Your task to perform on an android device: Go to eBay Image 0: 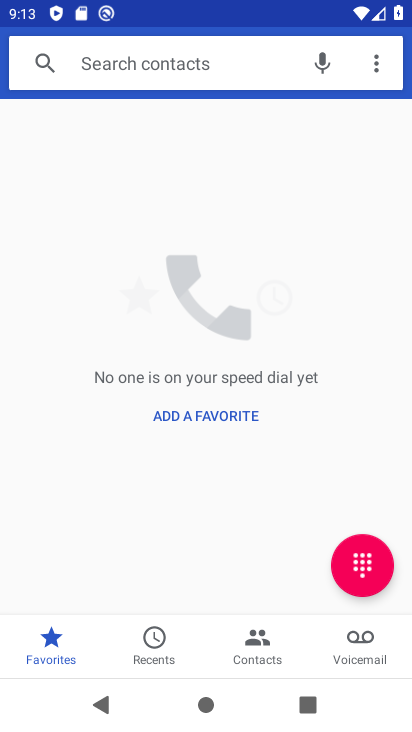
Step 0: press home button
Your task to perform on an android device: Go to eBay Image 1: 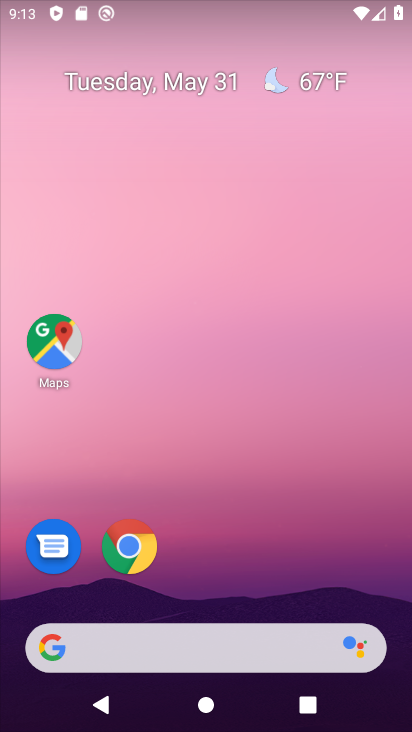
Step 1: drag from (174, 578) to (218, 17)
Your task to perform on an android device: Go to eBay Image 2: 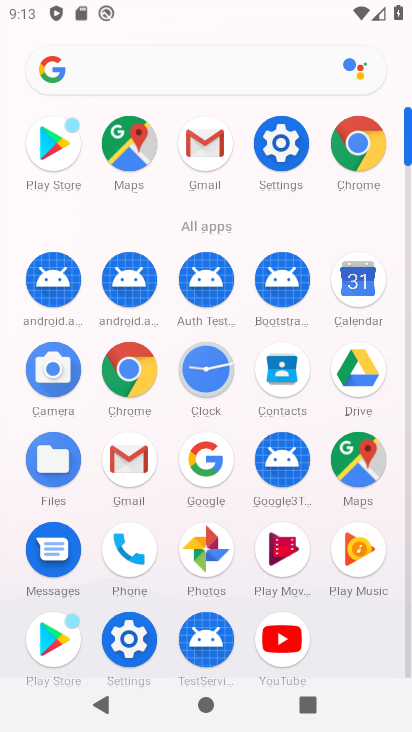
Step 2: click (129, 377)
Your task to perform on an android device: Go to eBay Image 3: 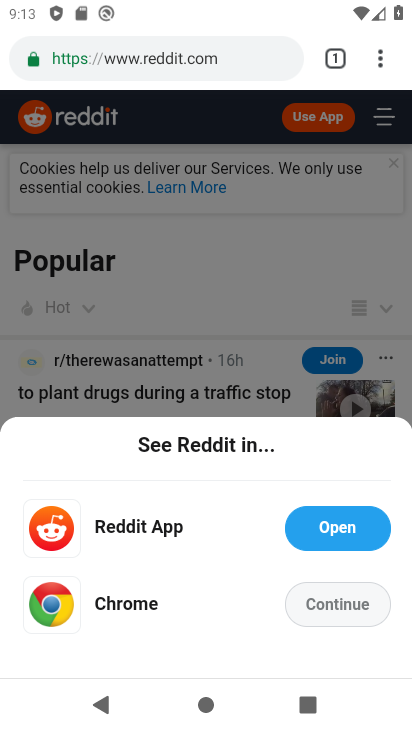
Step 3: click (209, 49)
Your task to perform on an android device: Go to eBay Image 4: 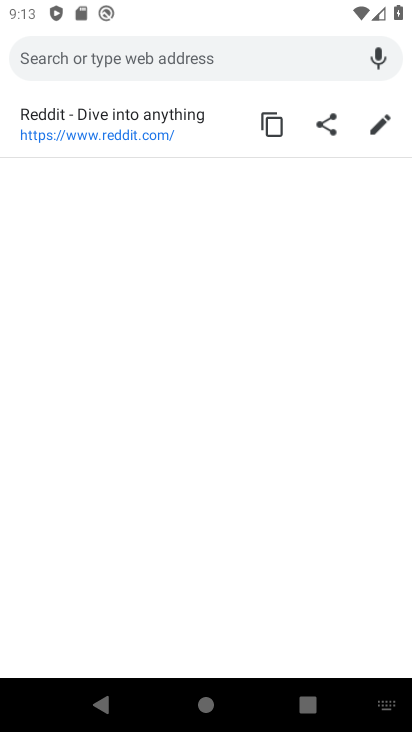
Step 4: type "eBay"
Your task to perform on an android device: Go to eBay Image 5: 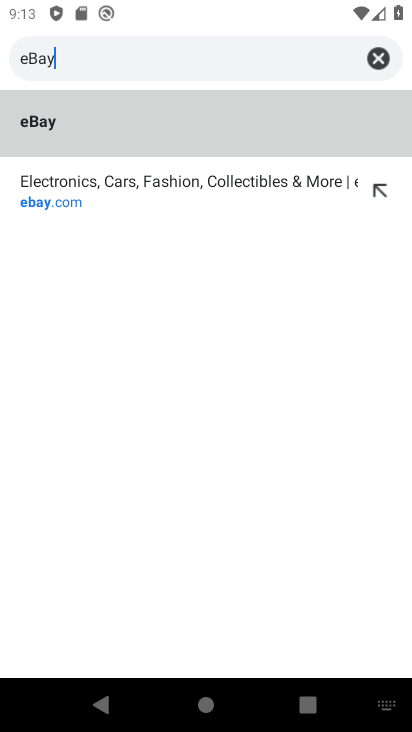
Step 5: click (157, 140)
Your task to perform on an android device: Go to eBay Image 6: 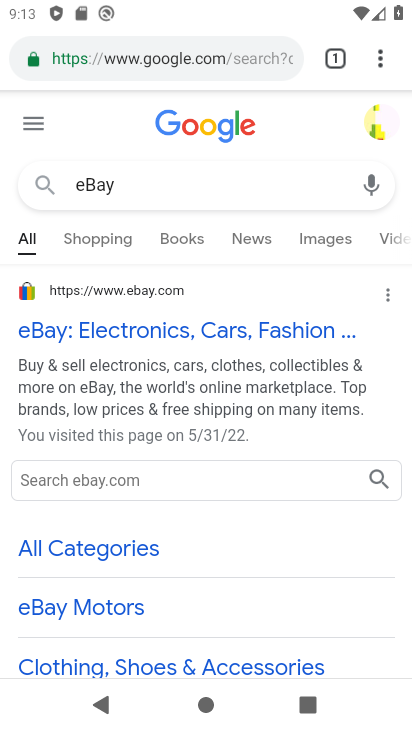
Step 6: task complete